Your task to perform on an android device: What's the weather like in Tokyo? Image 0: 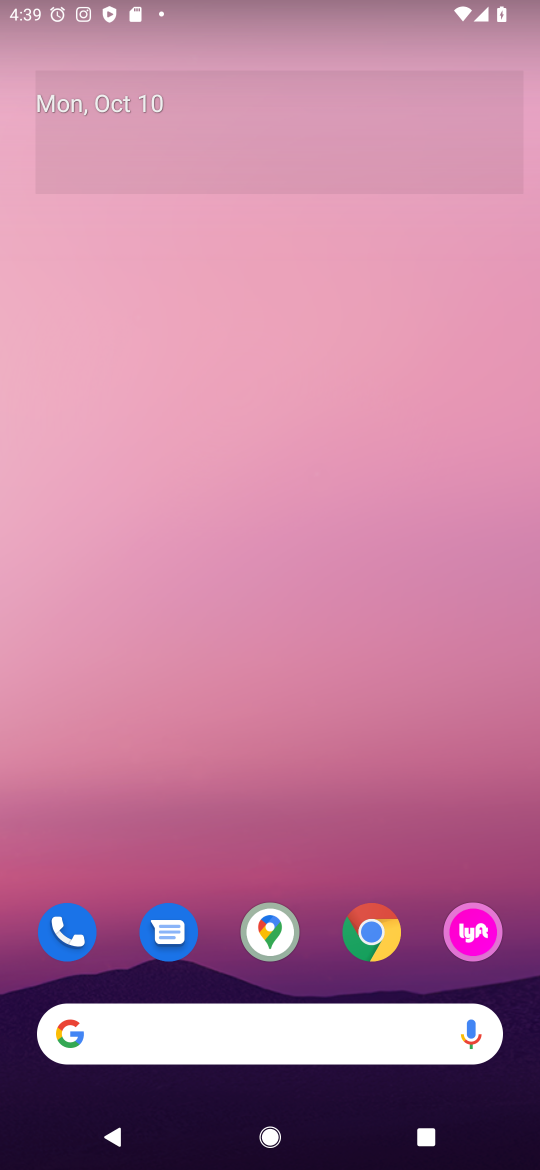
Step 0: press home button
Your task to perform on an android device: What's the weather like in Tokyo? Image 1: 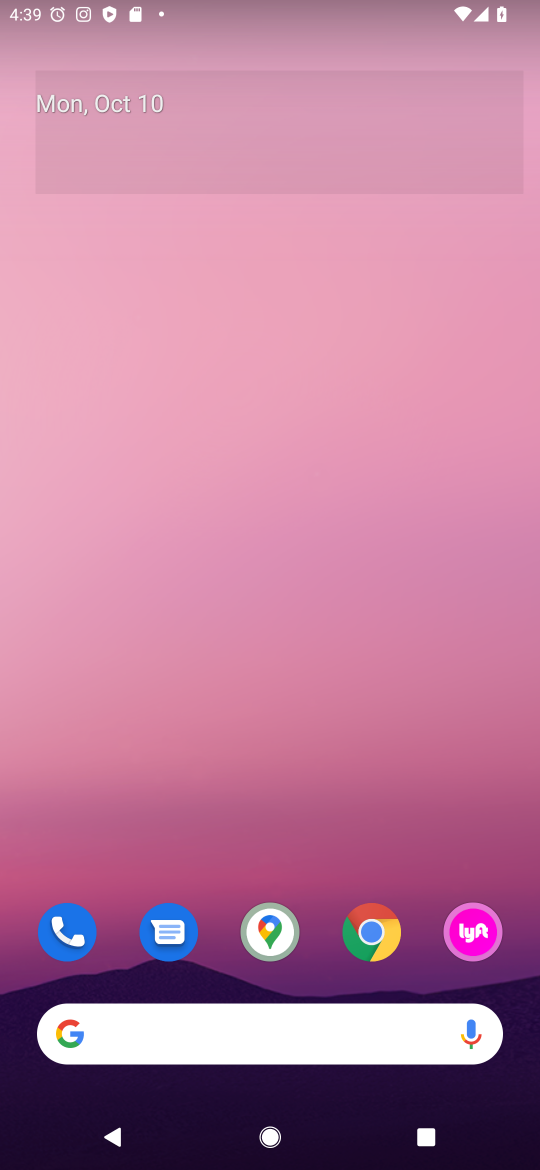
Step 1: click (308, 1040)
Your task to perform on an android device: What's the weather like in Tokyo? Image 2: 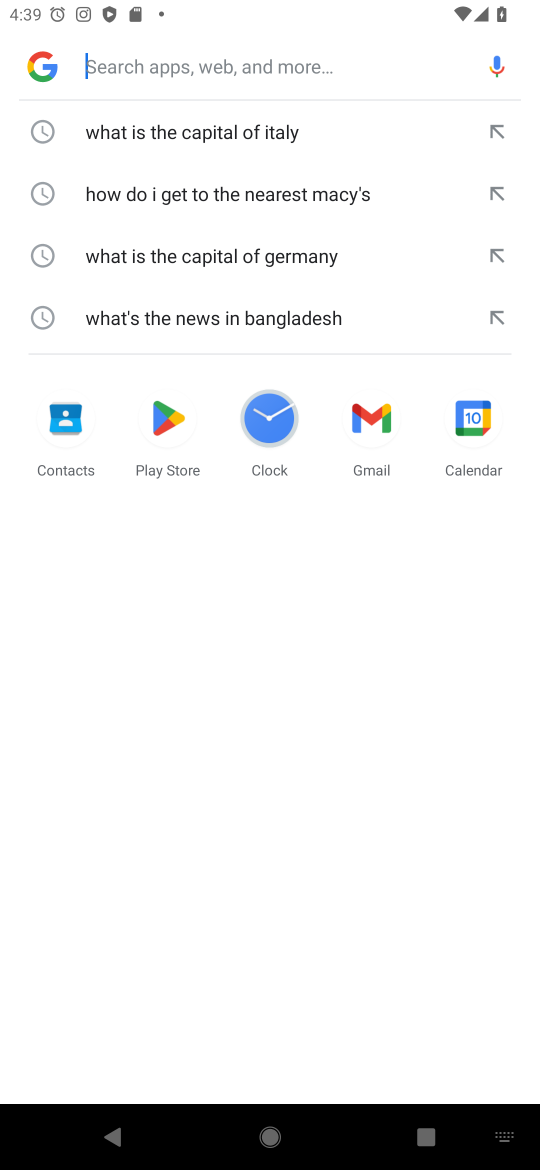
Step 2: type "What's the weather like in Tokyo"
Your task to perform on an android device: What's the weather like in Tokyo? Image 3: 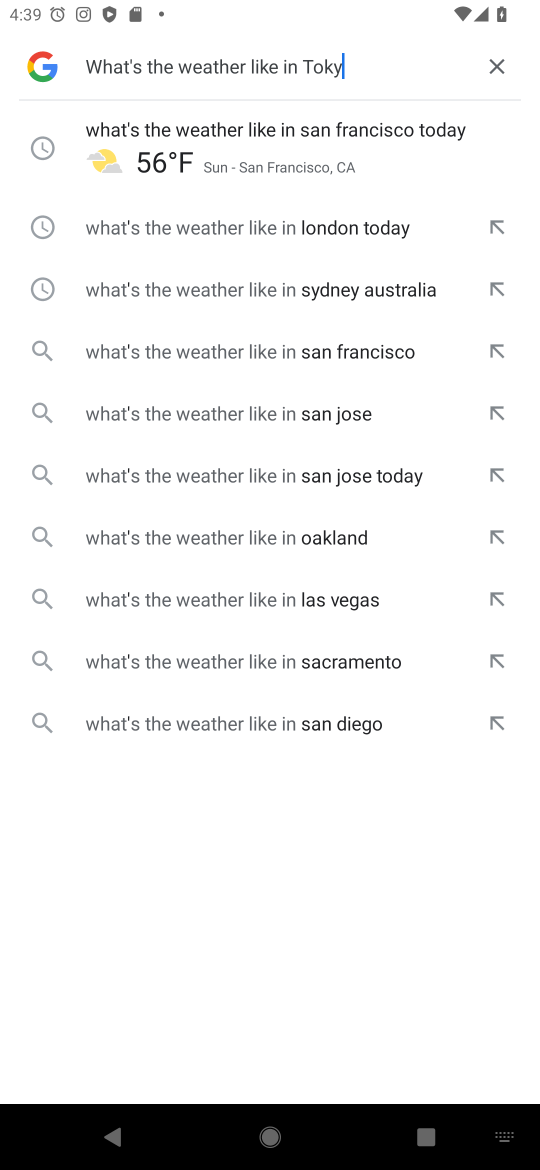
Step 3: press enter
Your task to perform on an android device: What's the weather like in Tokyo? Image 4: 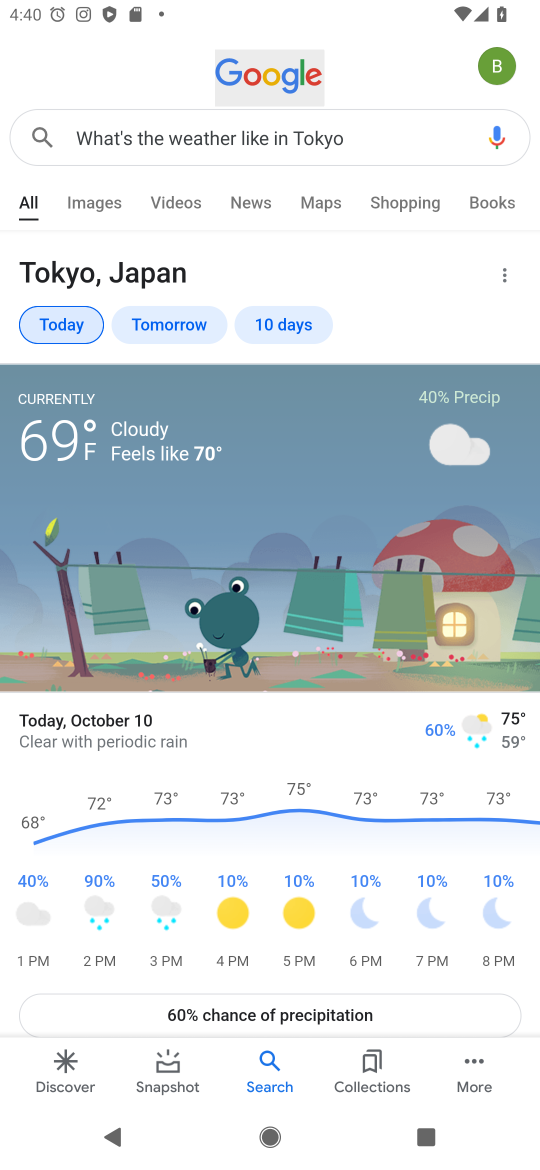
Step 4: task complete